Your task to perform on an android device: change notification settings in the gmail app Image 0: 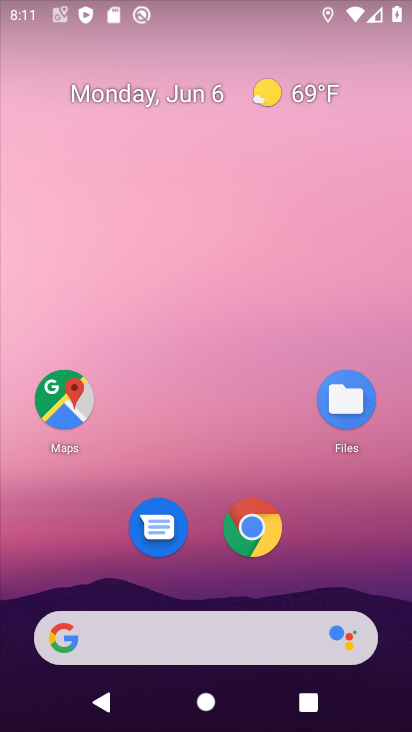
Step 0: drag from (282, 573) to (268, 161)
Your task to perform on an android device: change notification settings in the gmail app Image 1: 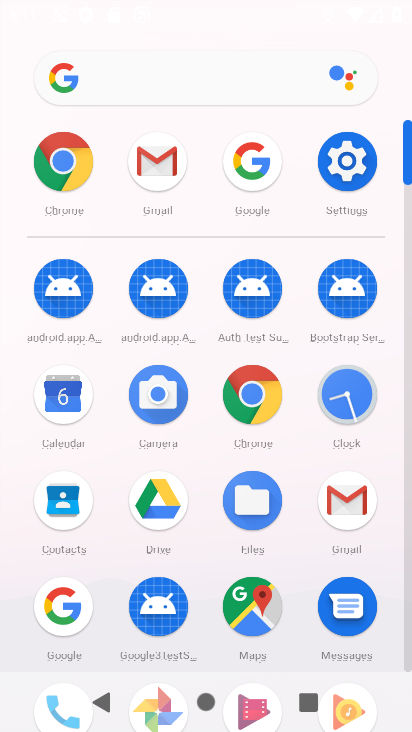
Step 1: click (160, 162)
Your task to perform on an android device: change notification settings in the gmail app Image 2: 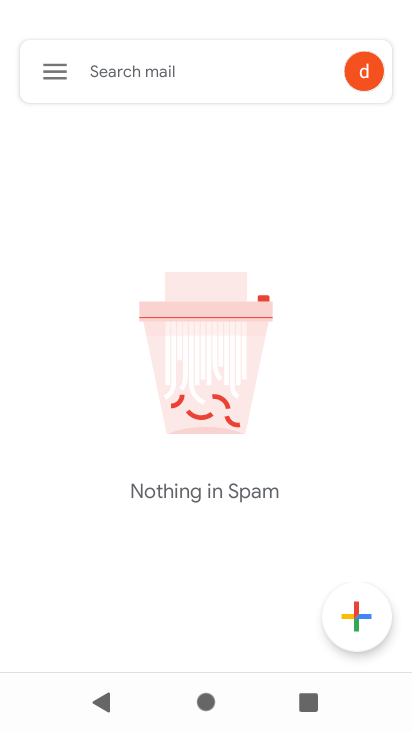
Step 2: click (52, 79)
Your task to perform on an android device: change notification settings in the gmail app Image 3: 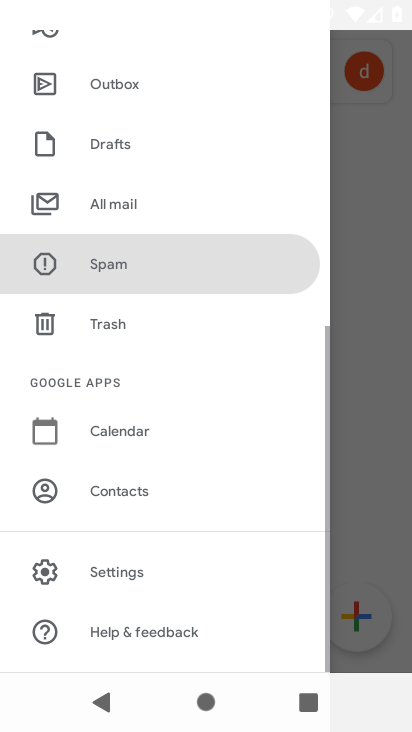
Step 3: click (143, 569)
Your task to perform on an android device: change notification settings in the gmail app Image 4: 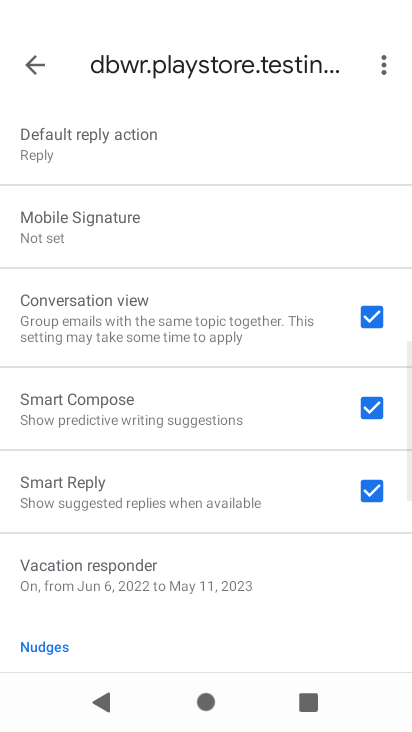
Step 4: drag from (155, 606) to (150, 214)
Your task to perform on an android device: change notification settings in the gmail app Image 5: 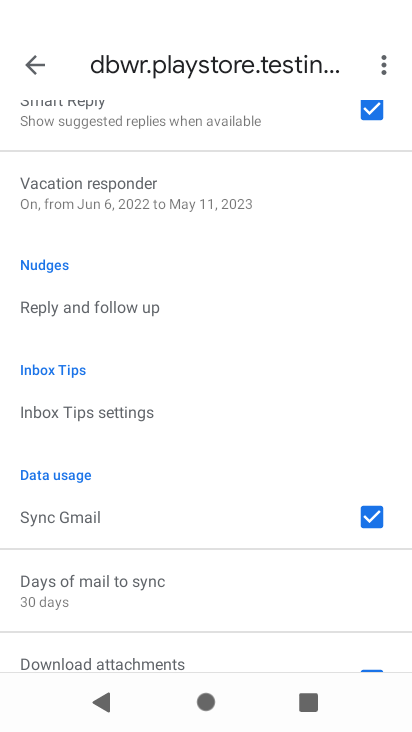
Step 5: drag from (130, 611) to (183, 645)
Your task to perform on an android device: change notification settings in the gmail app Image 6: 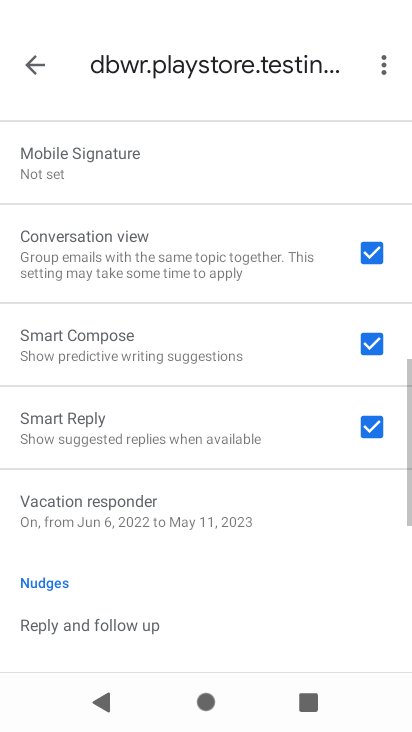
Step 6: drag from (136, 214) to (171, 655)
Your task to perform on an android device: change notification settings in the gmail app Image 7: 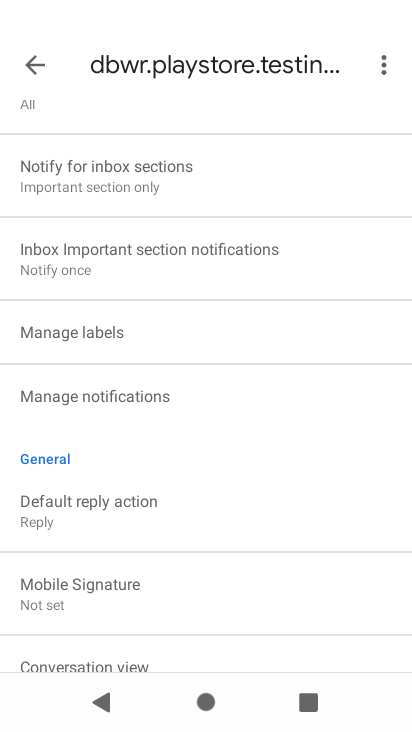
Step 7: drag from (127, 191) to (154, 405)
Your task to perform on an android device: change notification settings in the gmail app Image 8: 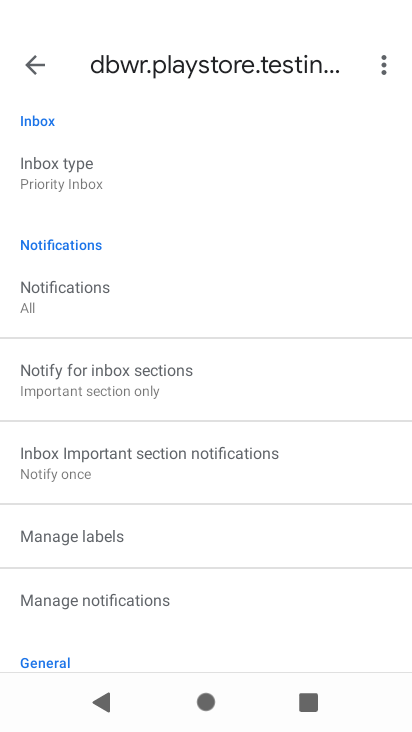
Step 8: click (91, 308)
Your task to perform on an android device: change notification settings in the gmail app Image 9: 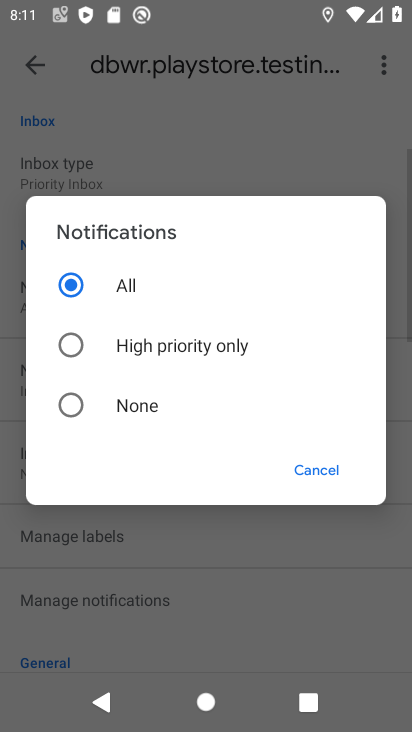
Step 9: click (72, 417)
Your task to perform on an android device: change notification settings in the gmail app Image 10: 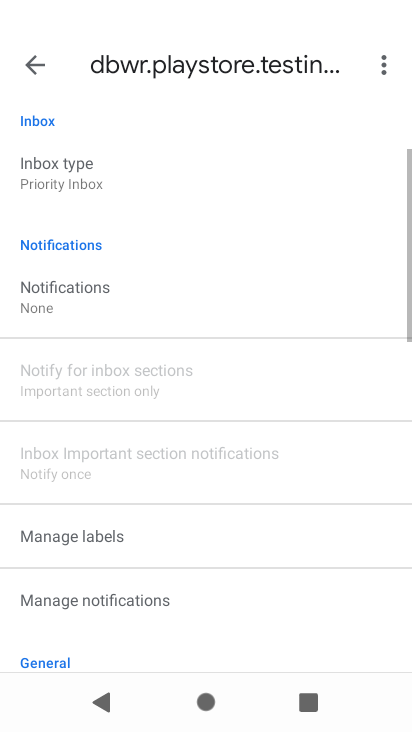
Step 10: task complete